Your task to perform on an android device: Go to ESPN.com Image 0: 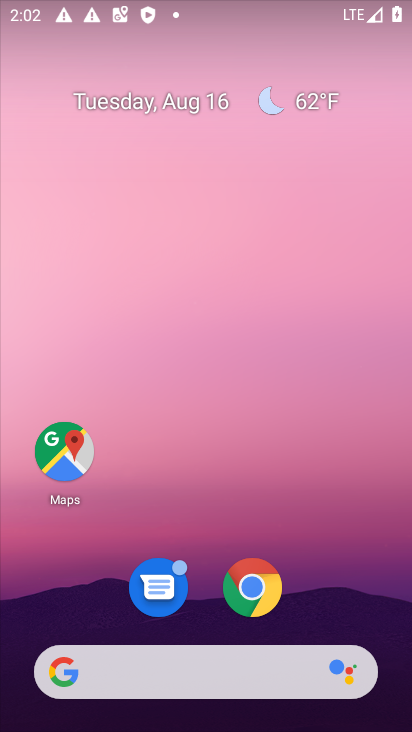
Step 0: click (249, 585)
Your task to perform on an android device: Go to ESPN.com Image 1: 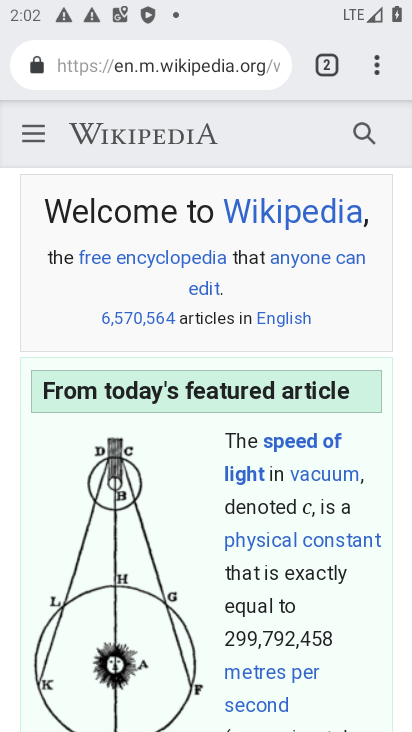
Step 1: click (325, 65)
Your task to perform on an android device: Go to ESPN.com Image 2: 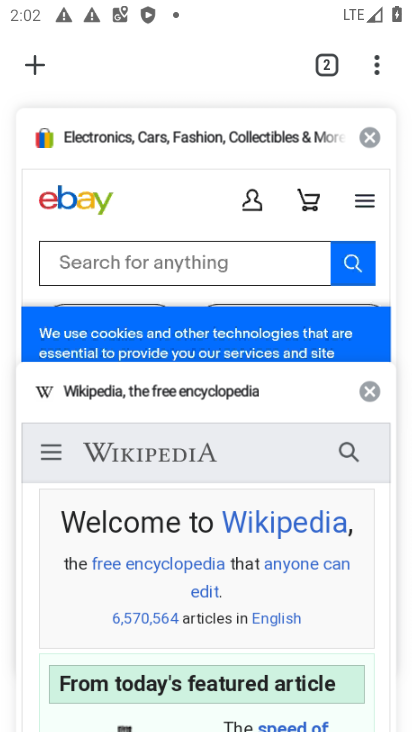
Step 2: click (35, 69)
Your task to perform on an android device: Go to ESPN.com Image 3: 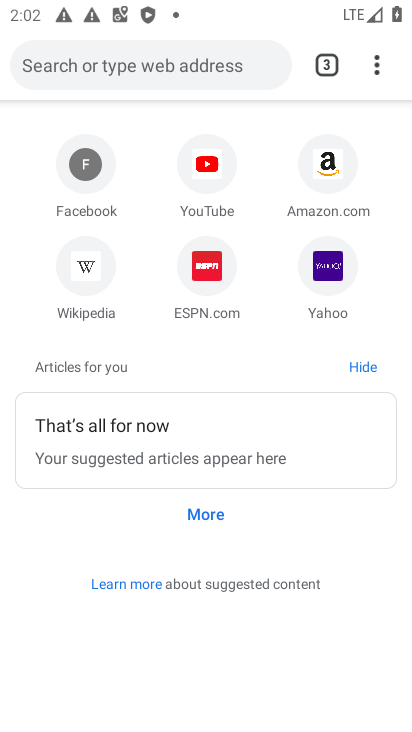
Step 3: click (194, 281)
Your task to perform on an android device: Go to ESPN.com Image 4: 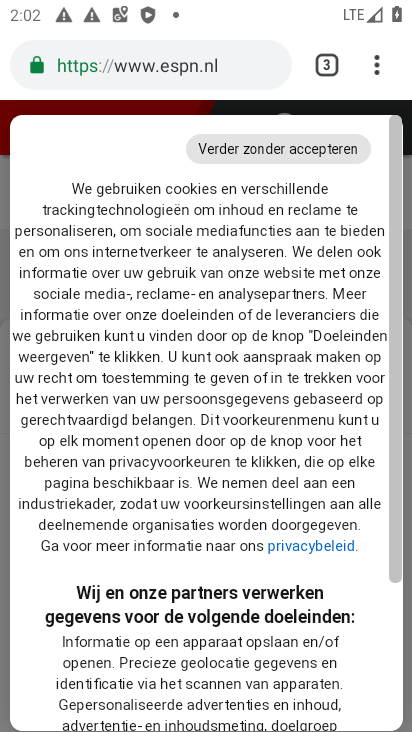
Step 4: task complete